Your task to perform on an android device: Open Google Image 0: 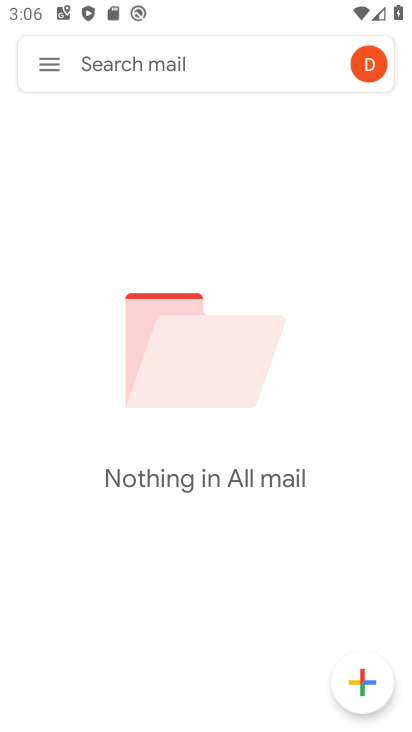
Step 0: press home button
Your task to perform on an android device: Open Google Image 1: 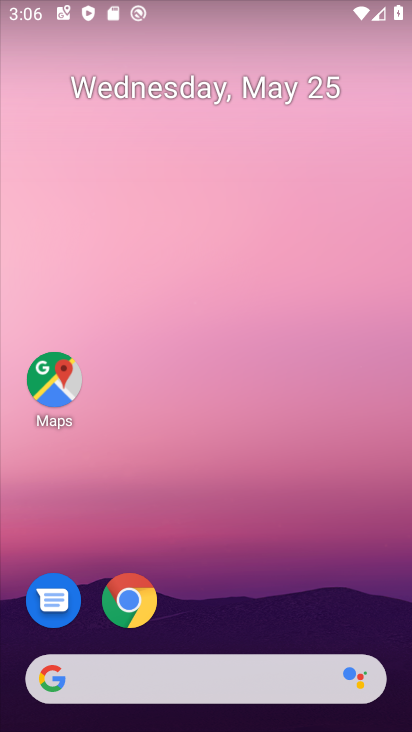
Step 1: click (82, 684)
Your task to perform on an android device: Open Google Image 2: 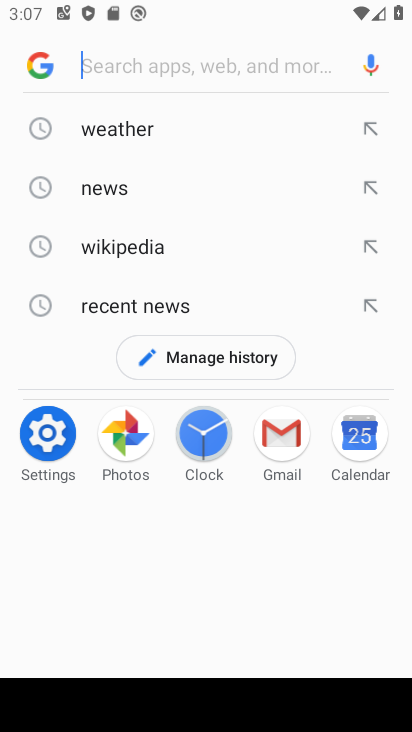
Step 2: click (35, 63)
Your task to perform on an android device: Open Google Image 3: 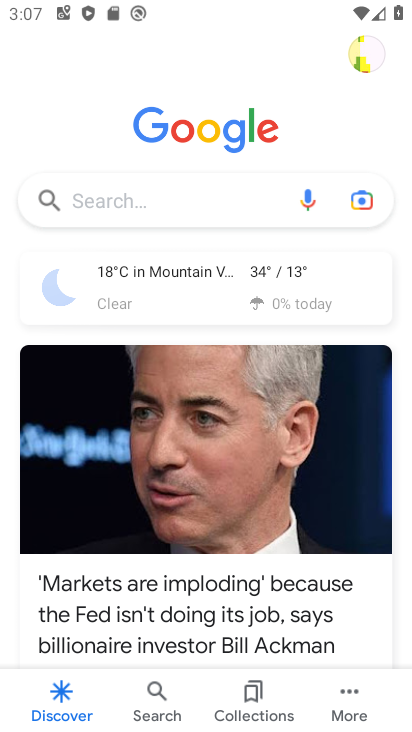
Step 3: task complete